Your task to perform on an android device: Open calendar and show me the second week of next month Image 0: 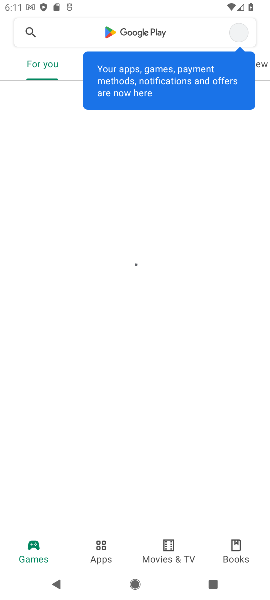
Step 0: press home button
Your task to perform on an android device: Open calendar and show me the second week of next month Image 1: 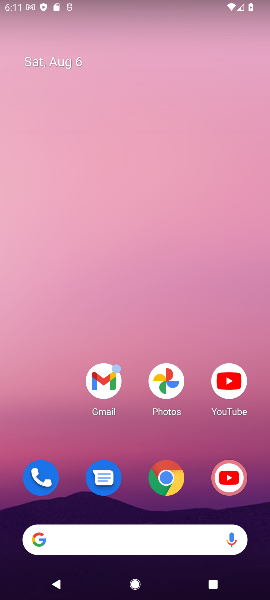
Step 1: drag from (139, 491) to (88, 27)
Your task to perform on an android device: Open calendar and show me the second week of next month Image 2: 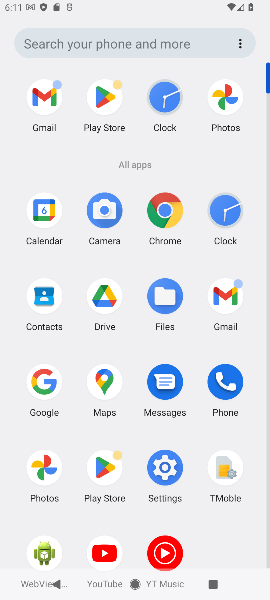
Step 2: click (47, 210)
Your task to perform on an android device: Open calendar and show me the second week of next month Image 3: 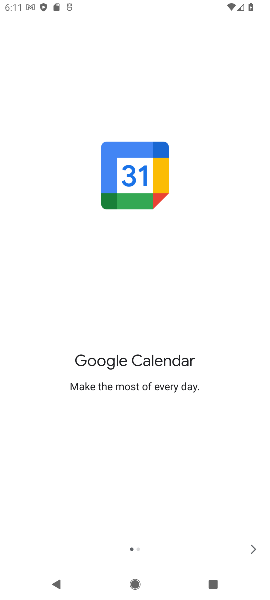
Step 3: click (248, 544)
Your task to perform on an android device: Open calendar and show me the second week of next month Image 4: 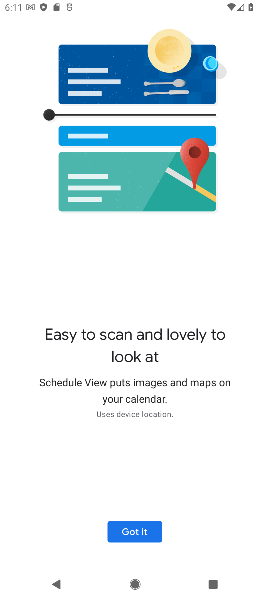
Step 4: click (148, 530)
Your task to perform on an android device: Open calendar and show me the second week of next month Image 5: 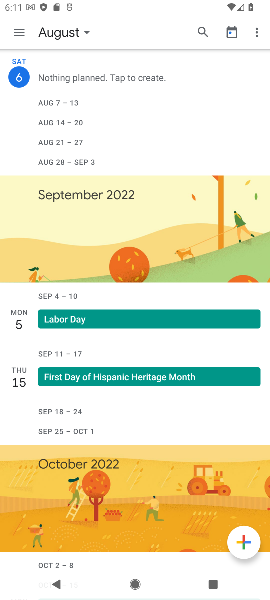
Step 5: click (21, 29)
Your task to perform on an android device: Open calendar and show me the second week of next month Image 6: 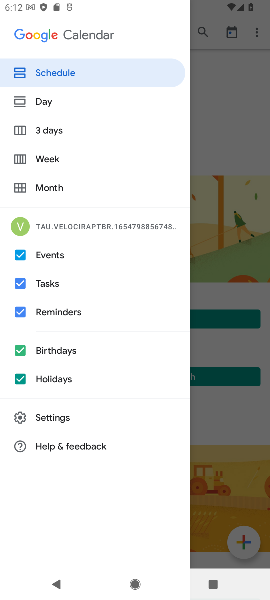
Step 6: click (31, 284)
Your task to perform on an android device: Open calendar and show me the second week of next month Image 7: 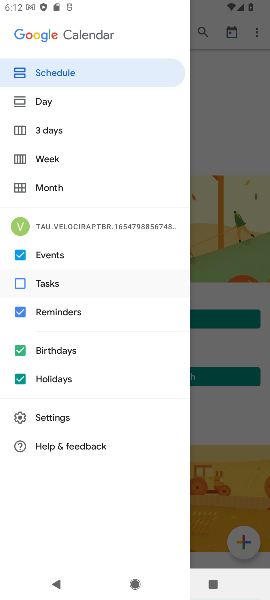
Step 7: click (23, 313)
Your task to perform on an android device: Open calendar and show me the second week of next month Image 8: 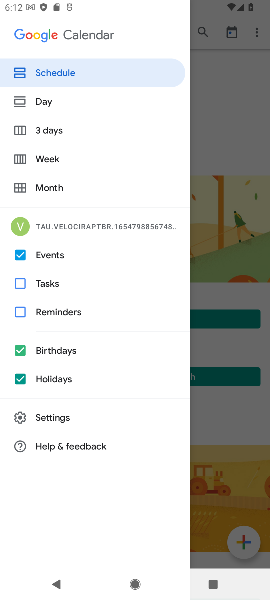
Step 8: click (19, 350)
Your task to perform on an android device: Open calendar and show me the second week of next month Image 9: 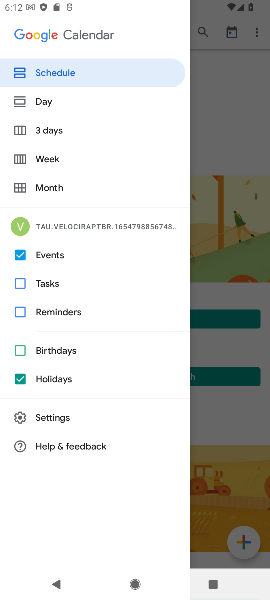
Step 9: click (23, 383)
Your task to perform on an android device: Open calendar and show me the second week of next month Image 10: 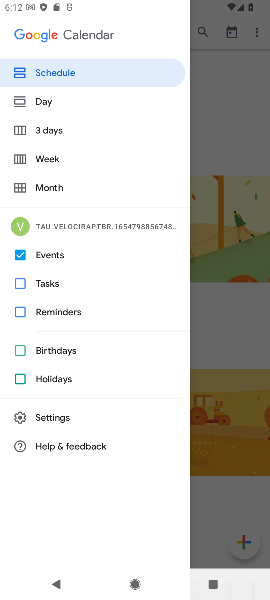
Step 10: click (49, 157)
Your task to perform on an android device: Open calendar and show me the second week of next month Image 11: 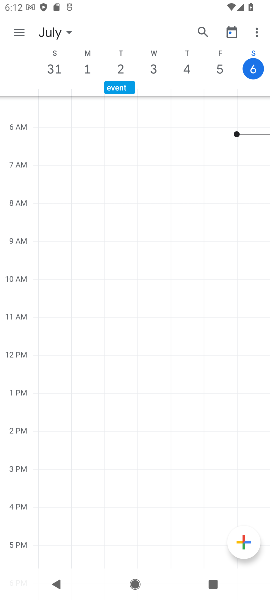
Step 11: click (55, 29)
Your task to perform on an android device: Open calendar and show me the second week of next month Image 12: 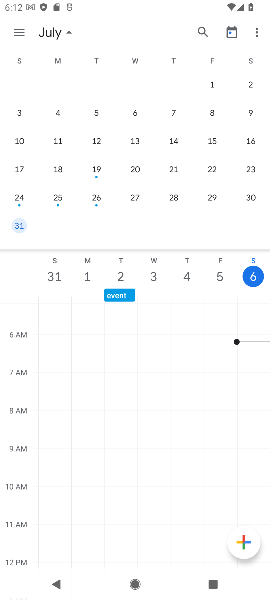
Step 12: drag from (215, 165) to (13, 149)
Your task to perform on an android device: Open calendar and show me the second week of next month Image 13: 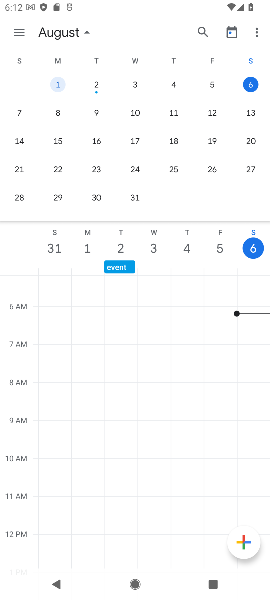
Step 13: drag from (217, 144) to (9, 105)
Your task to perform on an android device: Open calendar and show me the second week of next month Image 14: 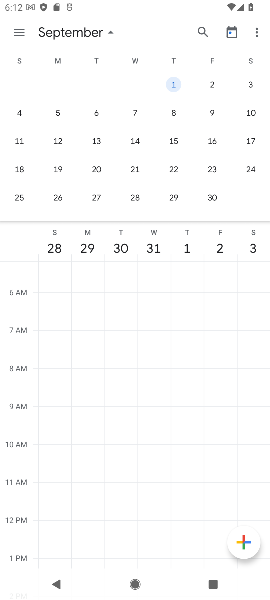
Step 14: click (134, 117)
Your task to perform on an android device: Open calendar and show me the second week of next month Image 15: 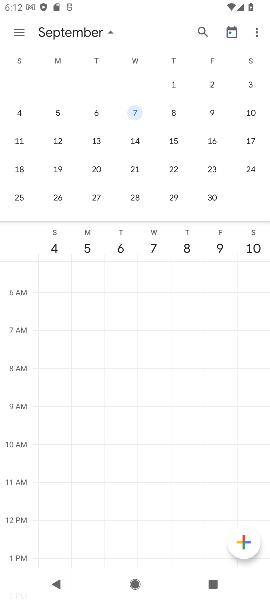
Step 15: click (16, 34)
Your task to perform on an android device: Open calendar and show me the second week of next month Image 16: 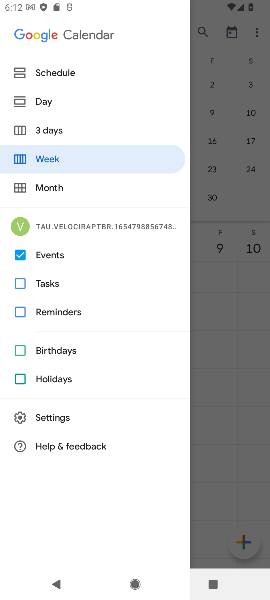
Step 16: click (60, 161)
Your task to perform on an android device: Open calendar and show me the second week of next month Image 17: 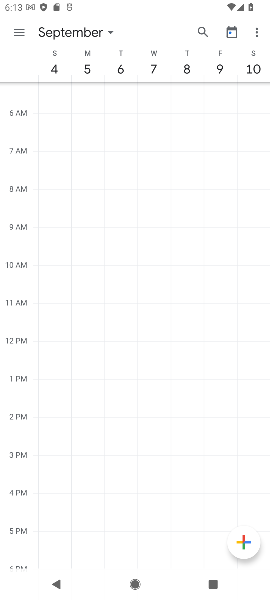
Step 17: task complete